Your task to perform on an android device: toggle priority inbox in the gmail app Image 0: 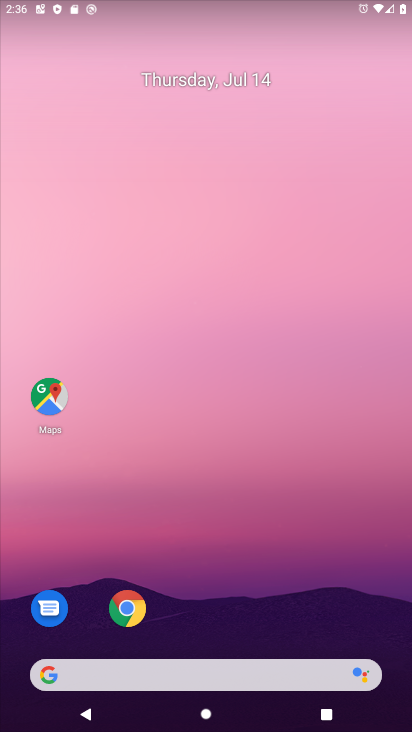
Step 0: drag from (246, 588) to (242, 139)
Your task to perform on an android device: toggle priority inbox in the gmail app Image 1: 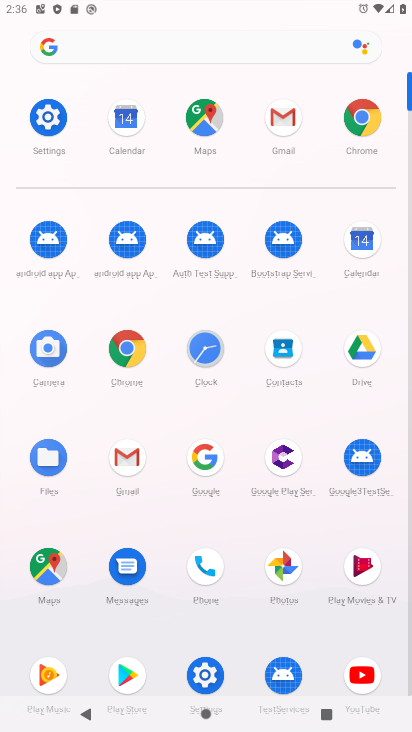
Step 1: click (198, 353)
Your task to perform on an android device: toggle priority inbox in the gmail app Image 2: 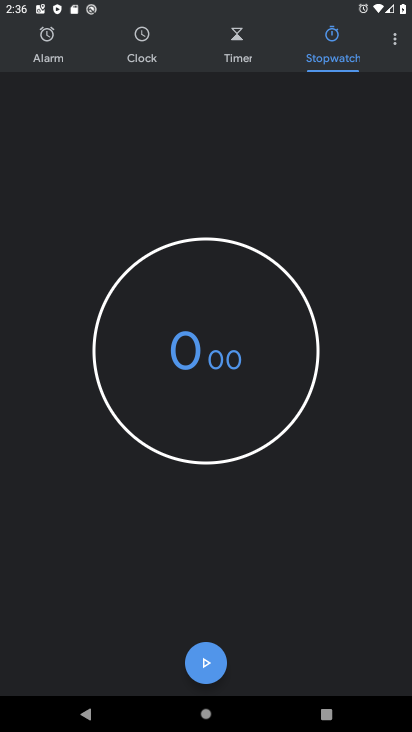
Step 2: click (48, 43)
Your task to perform on an android device: toggle priority inbox in the gmail app Image 3: 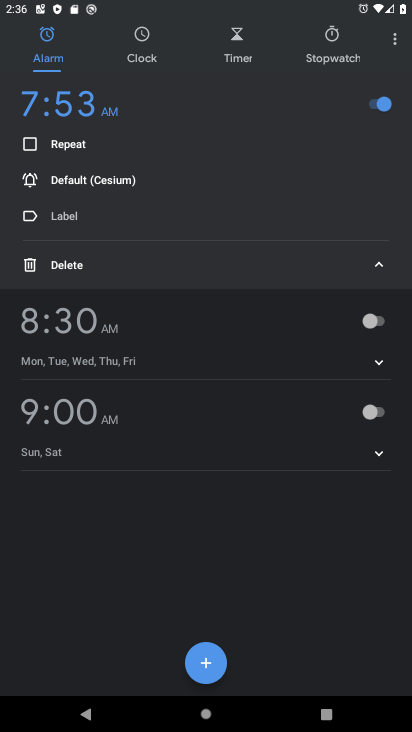
Step 3: click (207, 660)
Your task to perform on an android device: toggle priority inbox in the gmail app Image 4: 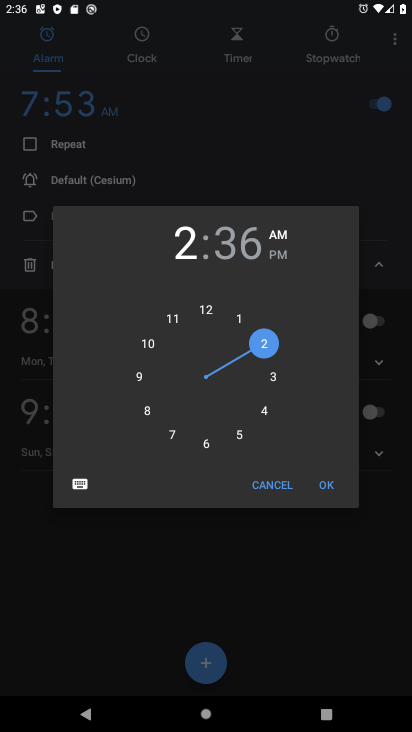
Step 4: click (146, 404)
Your task to perform on an android device: toggle priority inbox in the gmail app Image 5: 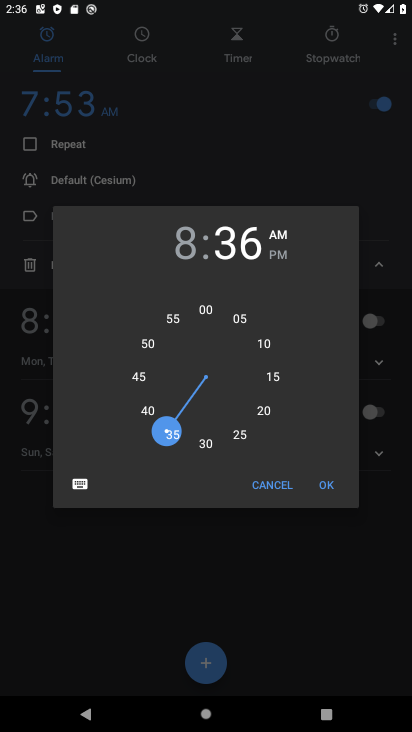
Step 5: click (325, 483)
Your task to perform on an android device: toggle priority inbox in the gmail app Image 6: 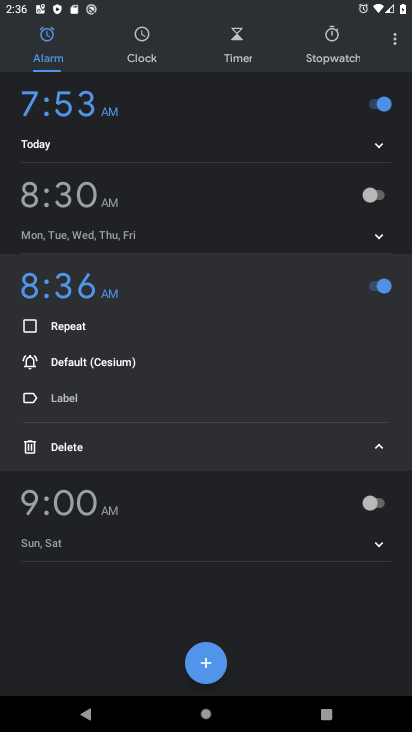
Step 6: task complete